Your task to perform on an android device: Play the last video I watched on Youtube Image 0: 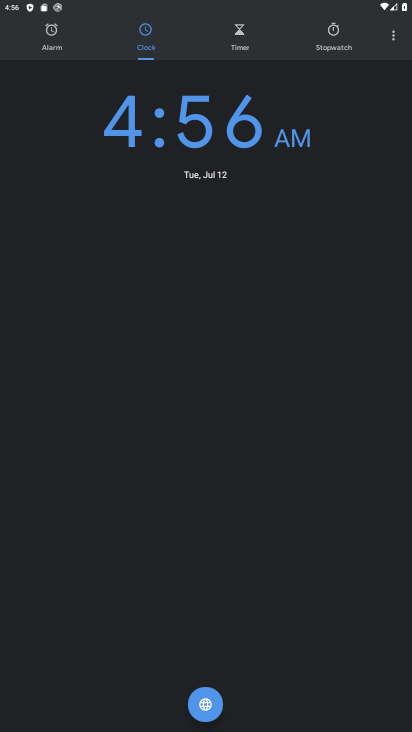
Step 0: press home button
Your task to perform on an android device: Play the last video I watched on Youtube Image 1: 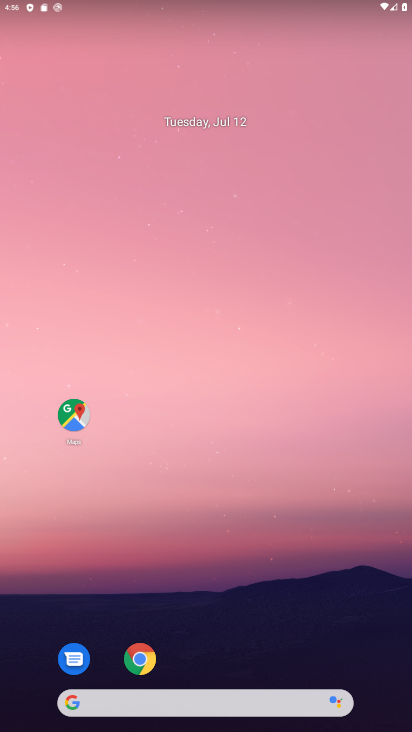
Step 1: drag from (365, 655) to (326, 248)
Your task to perform on an android device: Play the last video I watched on Youtube Image 2: 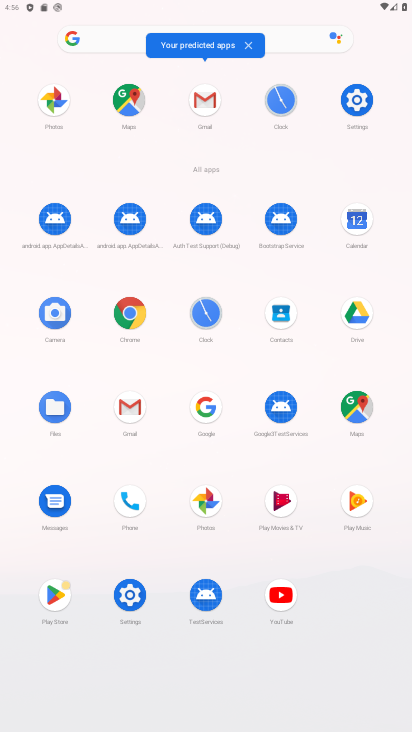
Step 2: click (279, 594)
Your task to perform on an android device: Play the last video I watched on Youtube Image 3: 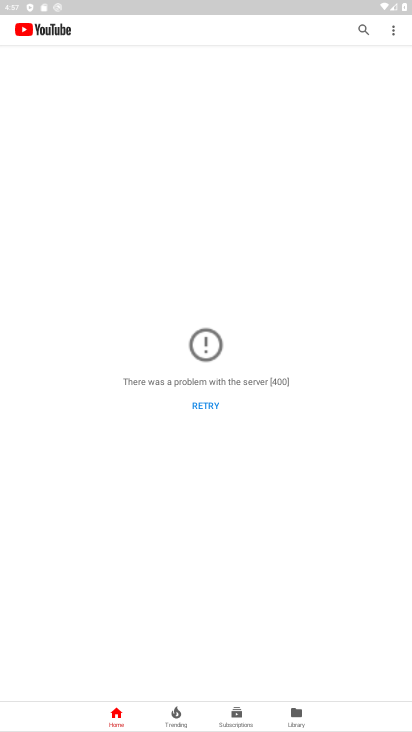
Step 3: click (298, 713)
Your task to perform on an android device: Play the last video I watched on Youtube Image 4: 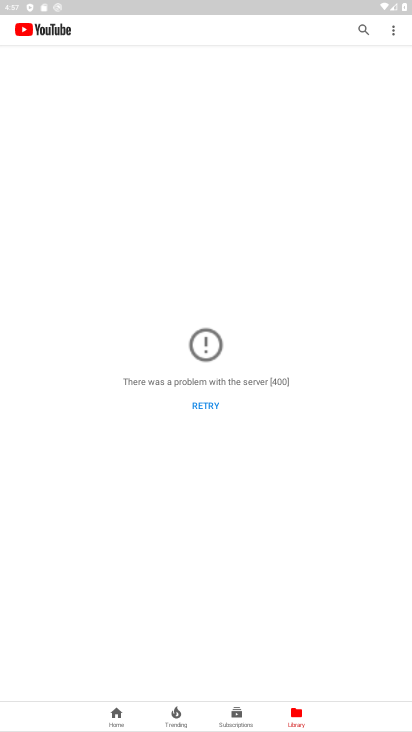
Step 4: click (205, 406)
Your task to perform on an android device: Play the last video I watched on Youtube Image 5: 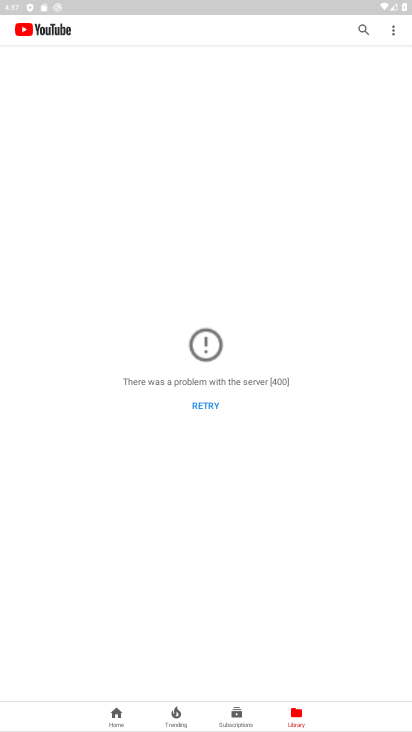
Step 5: click (202, 402)
Your task to perform on an android device: Play the last video I watched on Youtube Image 6: 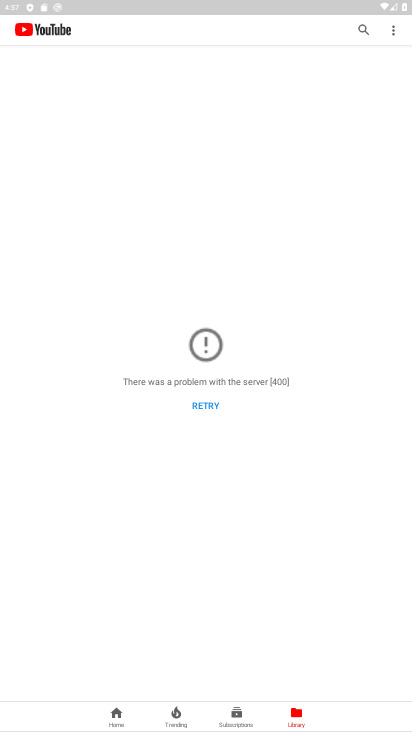
Step 6: task complete